Your task to perform on an android device: open app "Facebook" (install if not already installed) and go to login screen Image 0: 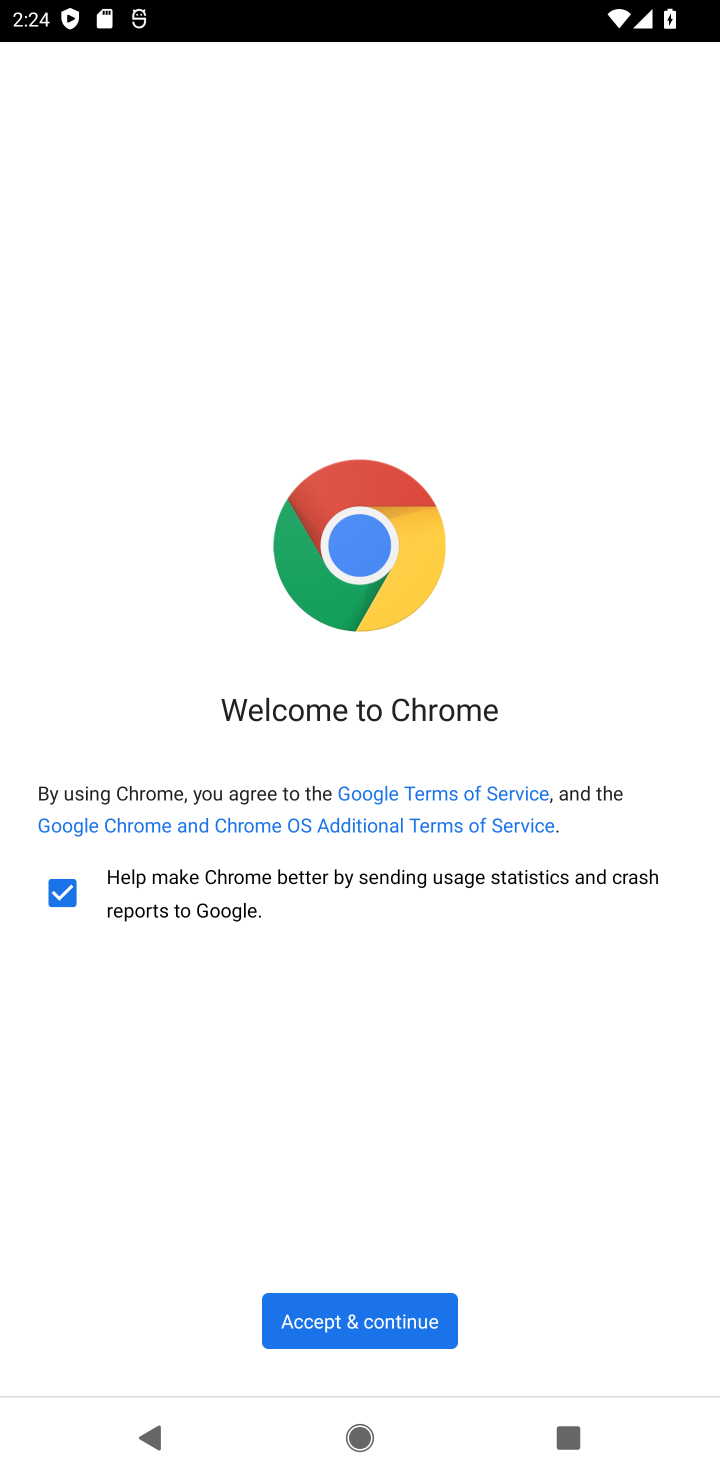
Step 0: press home button
Your task to perform on an android device: open app "Facebook" (install if not already installed) and go to login screen Image 1: 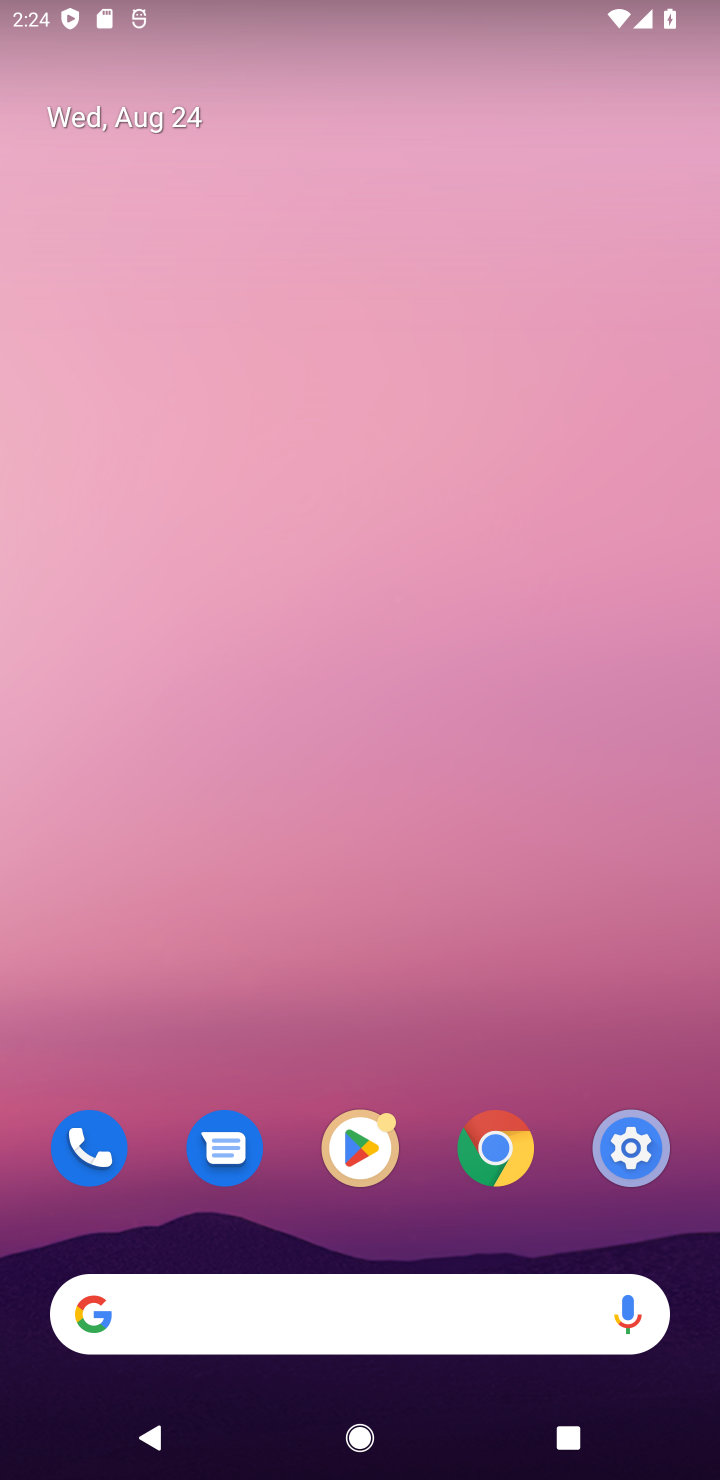
Step 1: drag from (291, 1203) to (328, 316)
Your task to perform on an android device: open app "Facebook" (install if not already installed) and go to login screen Image 2: 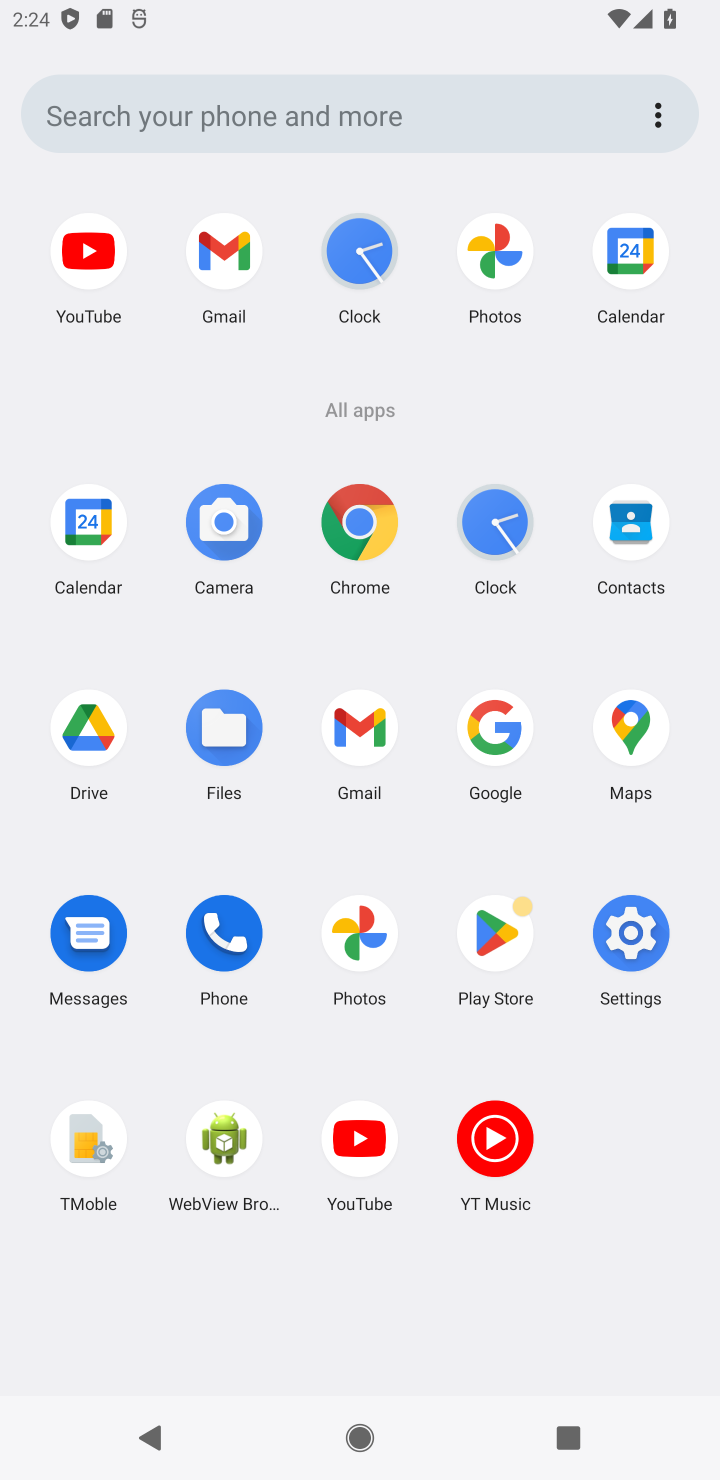
Step 2: drag from (321, 715) to (347, 584)
Your task to perform on an android device: open app "Facebook" (install if not already installed) and go to login screen Image 3: 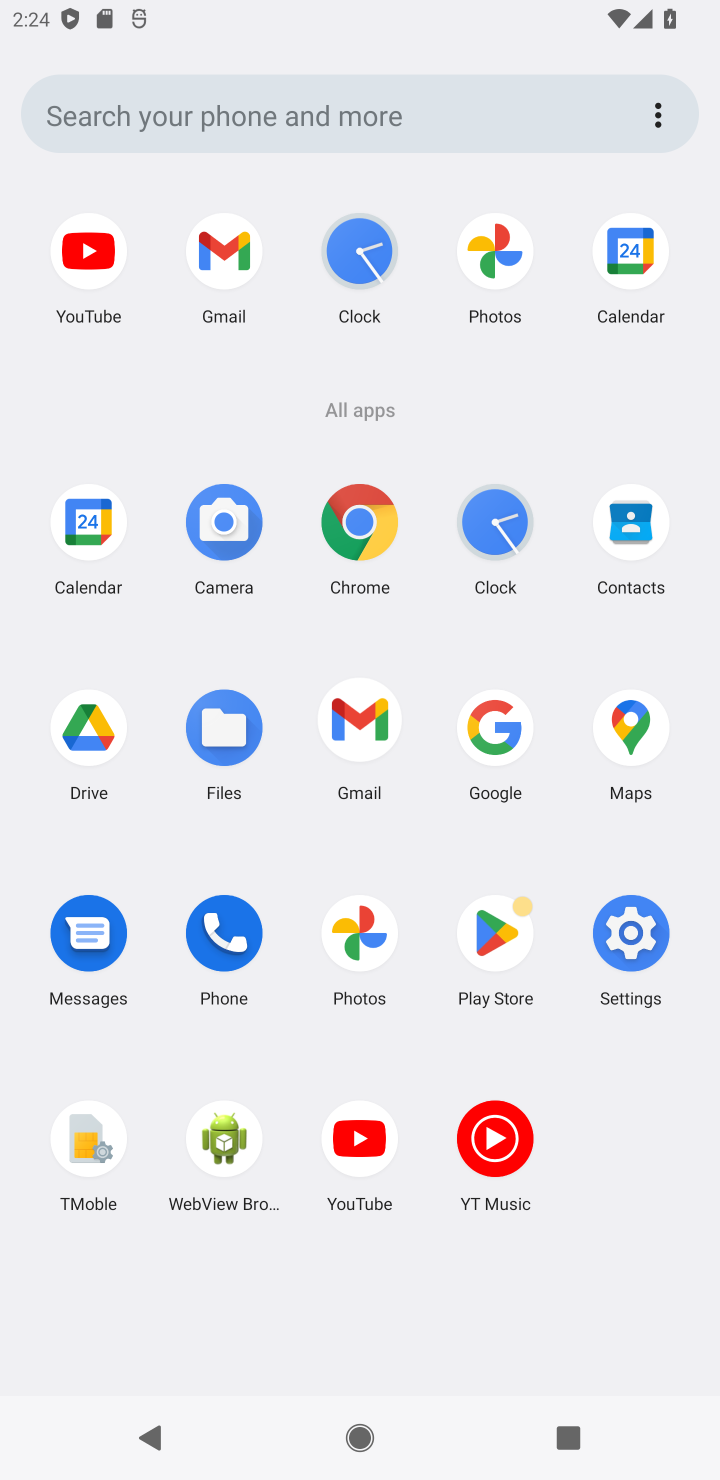
Step 3: click (489, 918)
Your task to perform on an android device: open app "Facebook" (install if not already installed) and go to login screen Image 4: 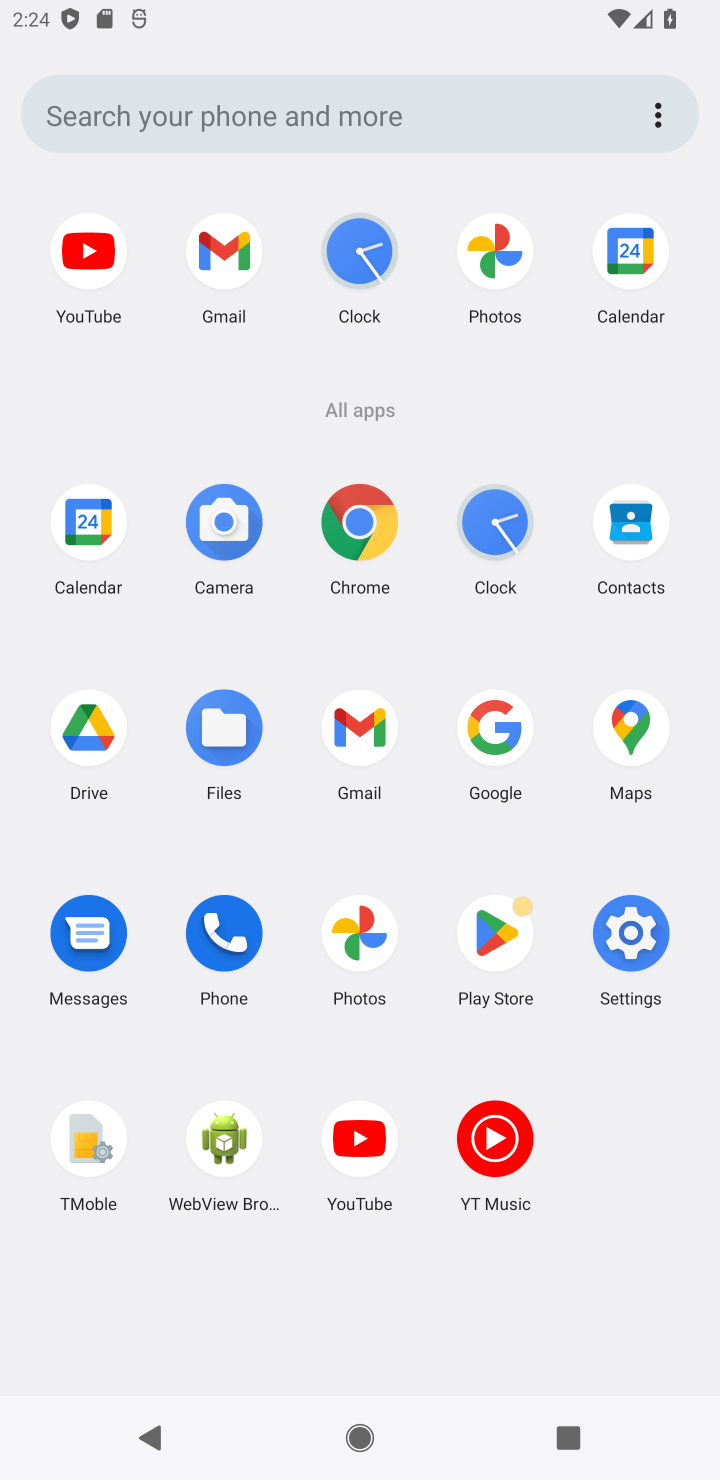
Step 4: click (491, 924)
Your task to perform on an android device: open app "Facebook" (install if not already installed) and go to login screen Image 5: 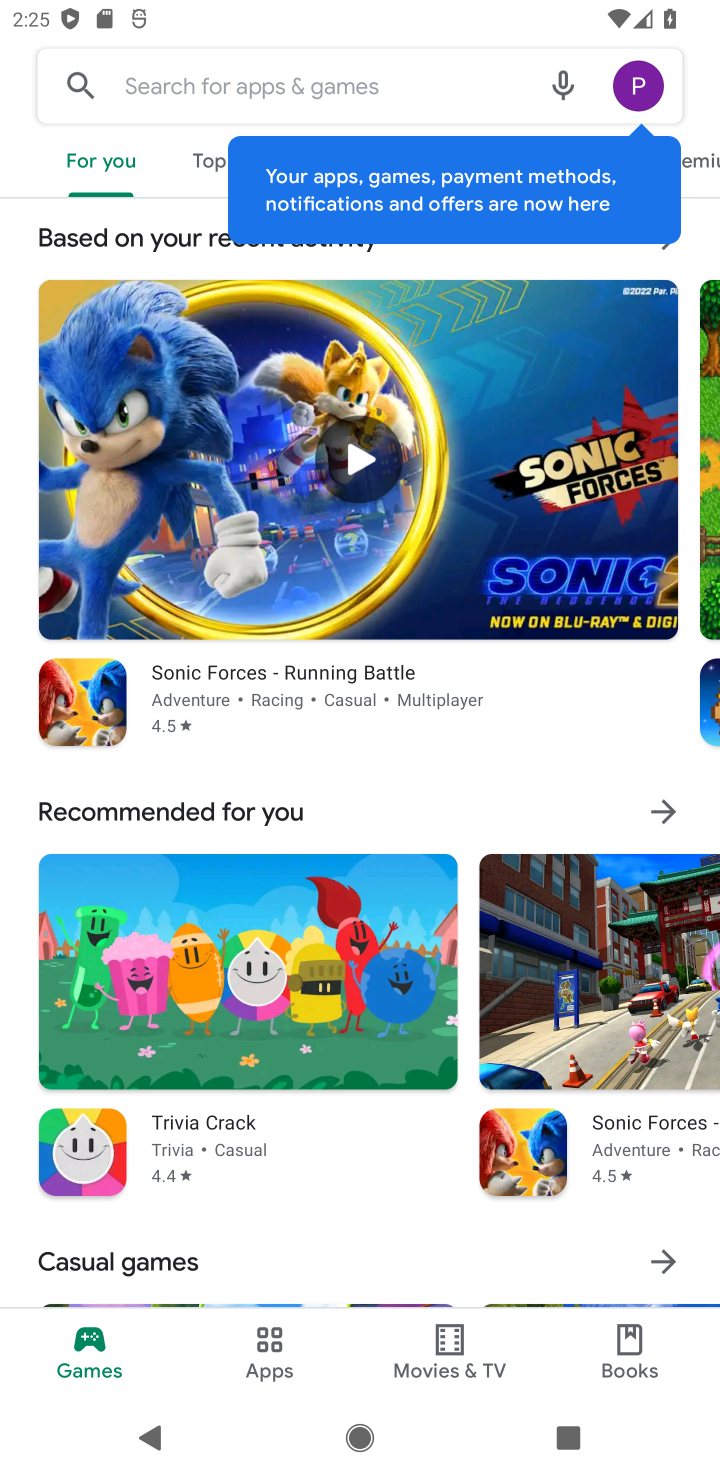
Step 5: click (286, 63)
Your task to perform on an android device: open app "Facebook" (install if not already installed) and go to login screen Image 6: 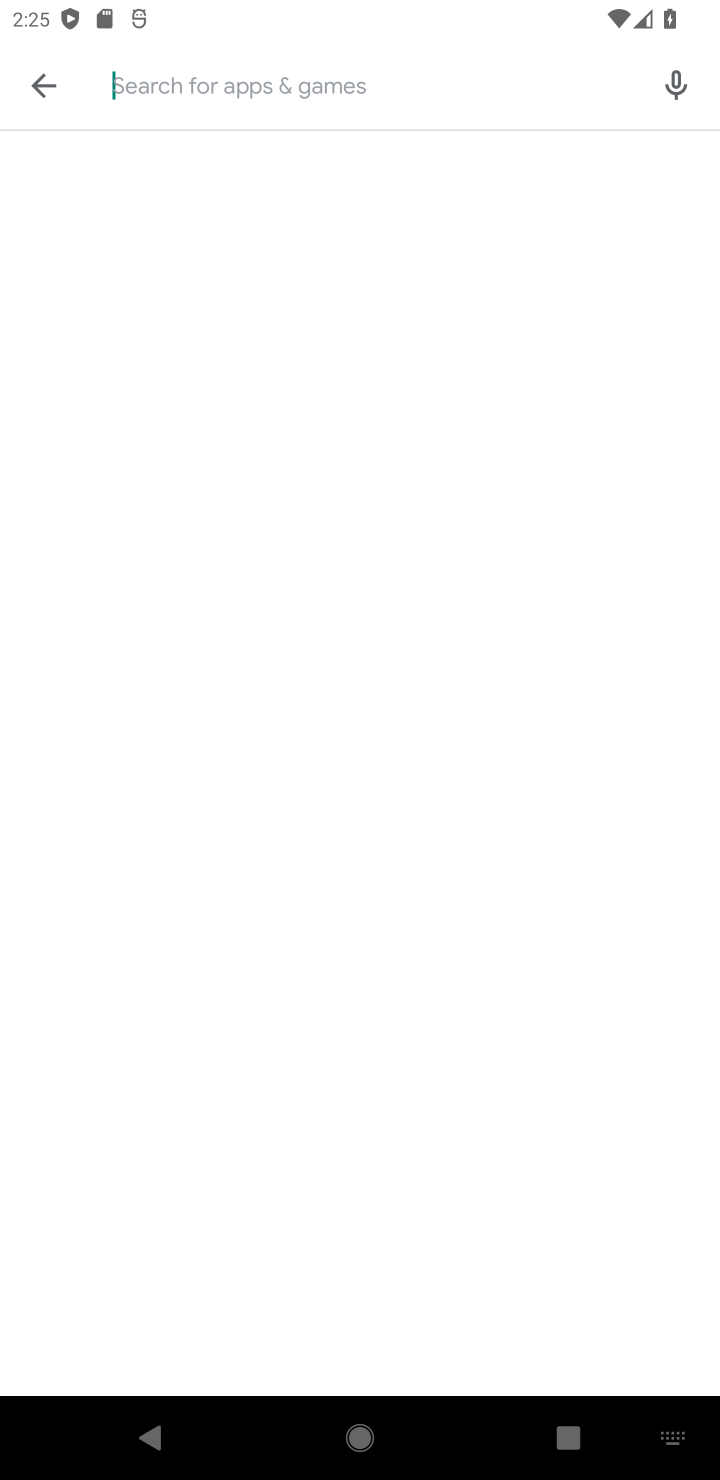
Step 6: type "Facebook "
Your task to perform on an android device: open app "Facebook" (install if not already installed) and go to login screen Image 7: 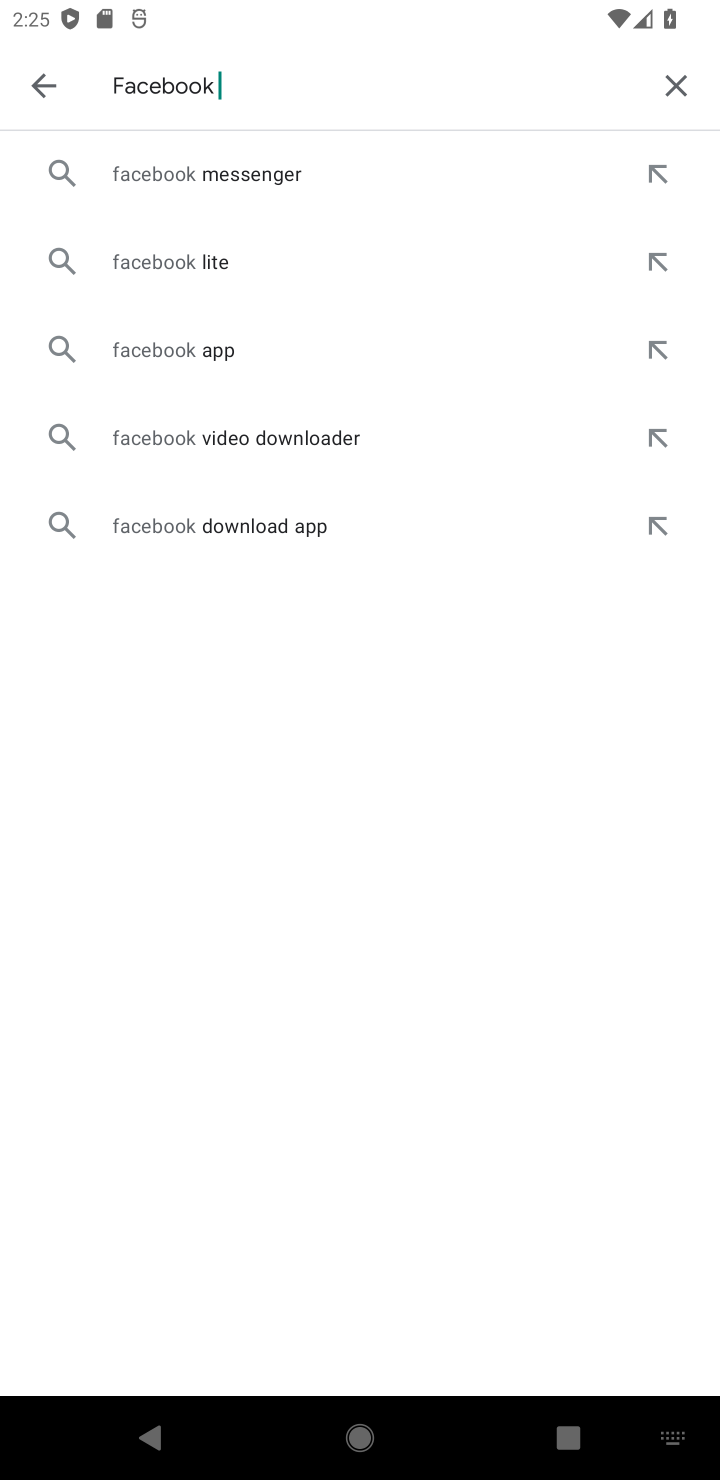
Step 7: click (187, 355)
Your task to perform on an android device: open app "Facebook" (install if not already installed) and go to login screen Image 8: 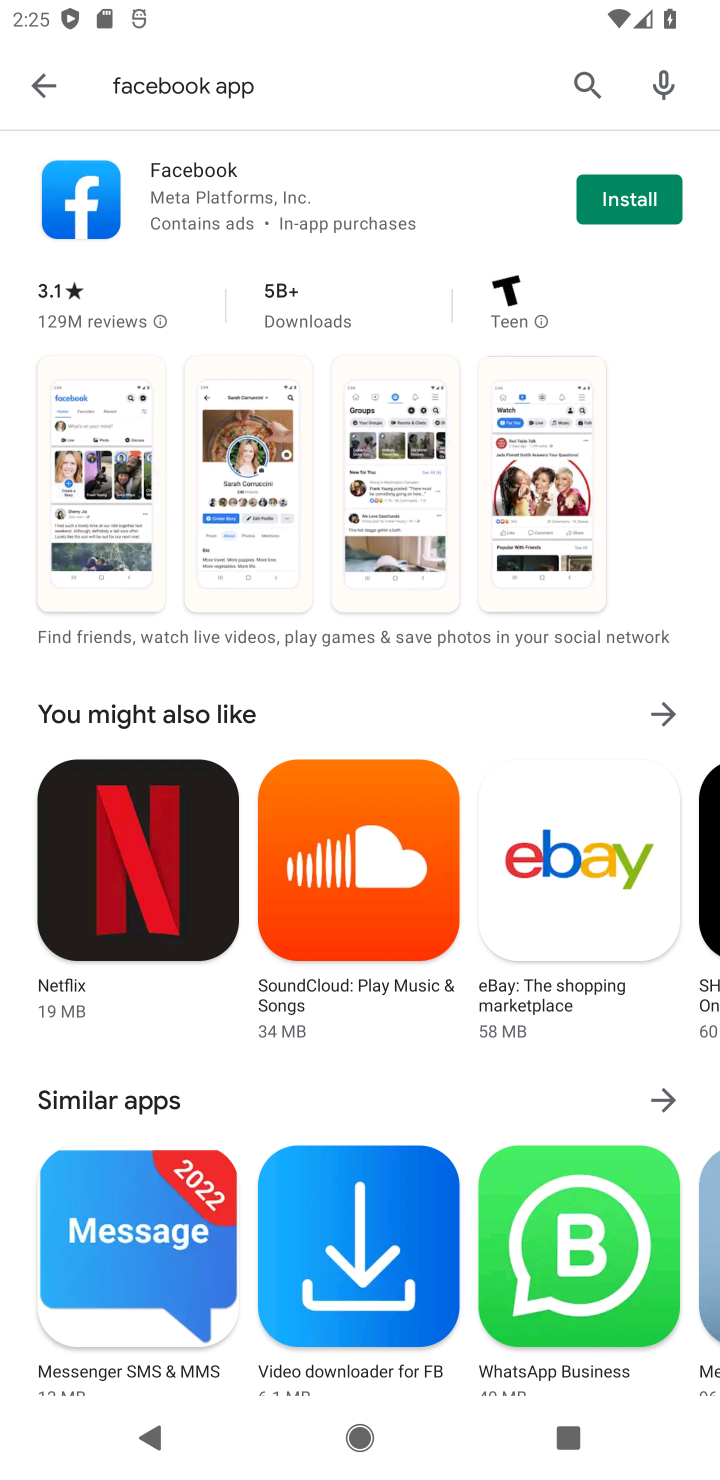
Step 8: click (630, 195)
Your task to perform on an android device: open app "Facebook" (install if not already installed) and go to login screen Image 9: 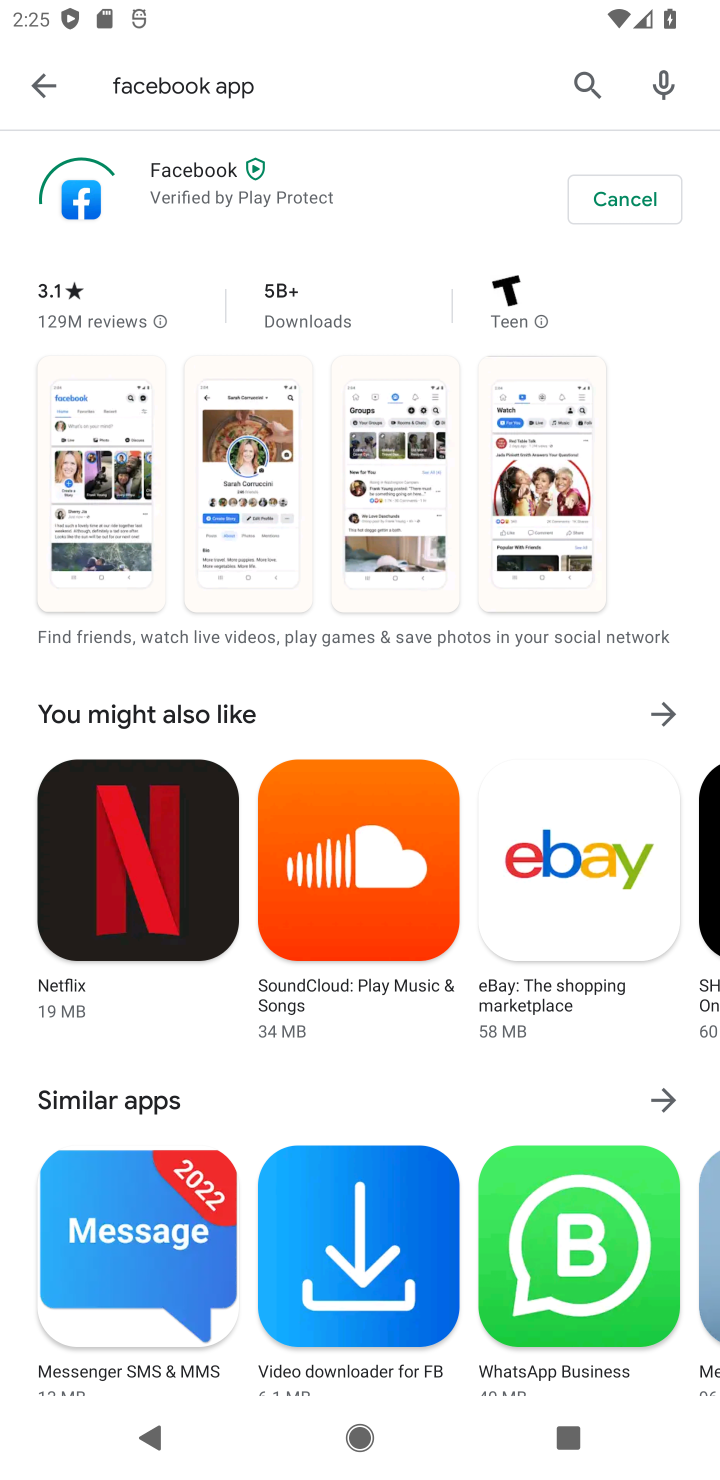
Step 9: click (606, 196)
Your task to perform on an android device: open app "Facebook" (install if not already installed) and go to login screen Image 10: 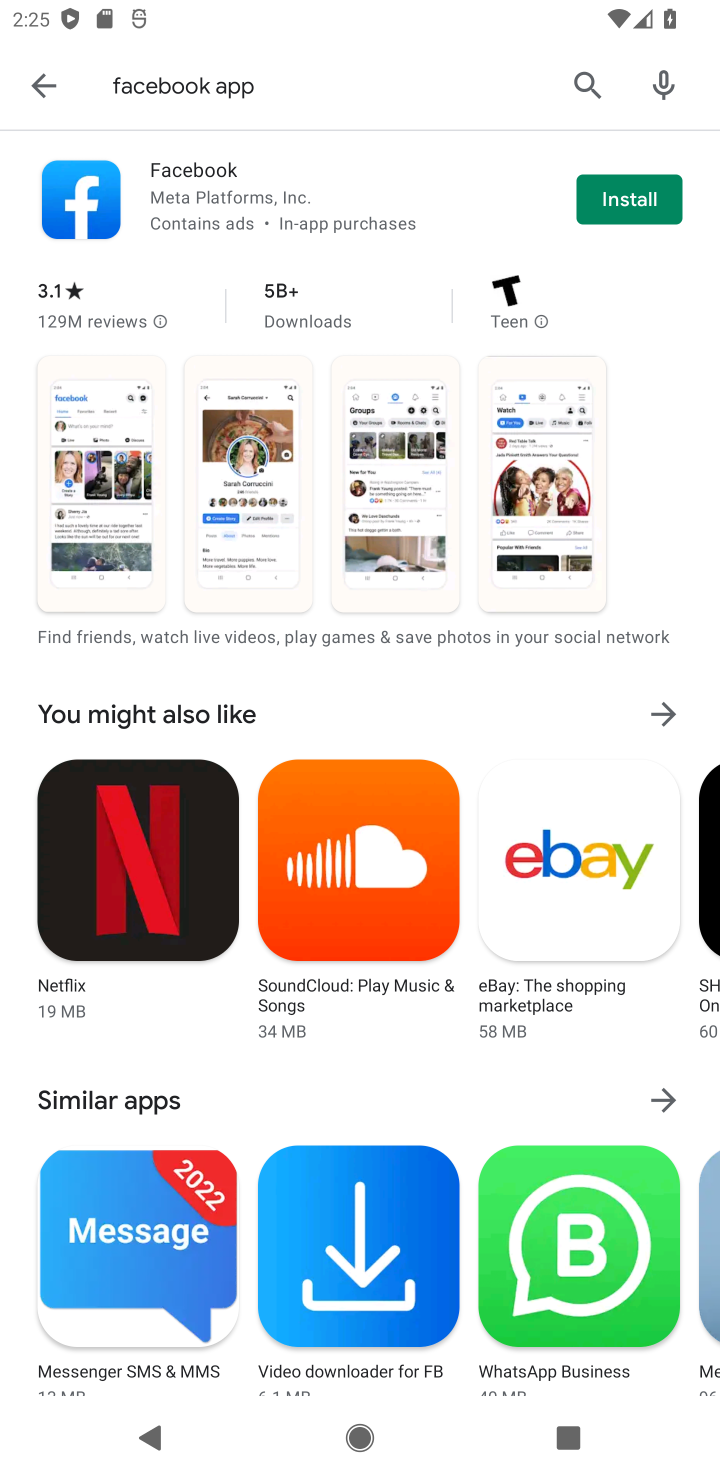
Step 10: click (664, 197)
Your task to perform on an android device: open app "Facebook" (install if not already installed) and go to login screen Image 11: 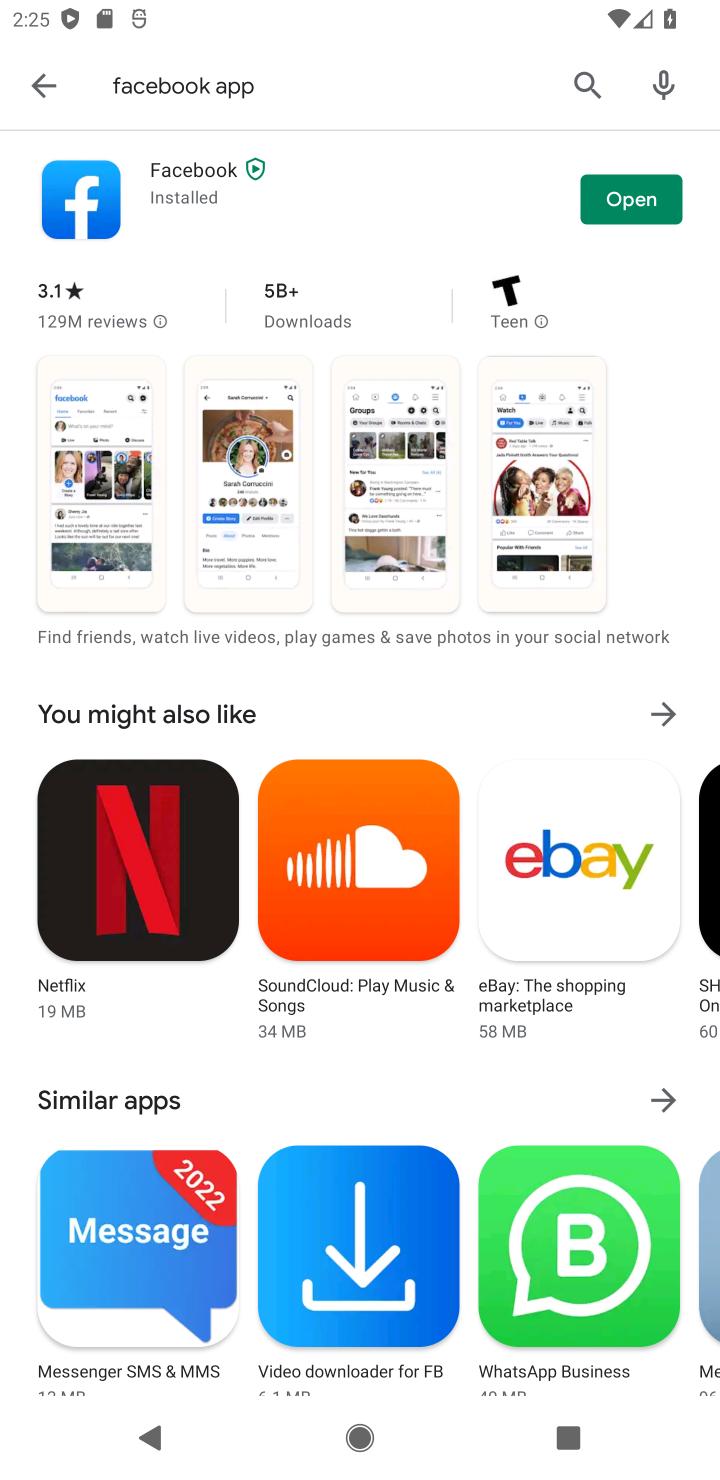
Step 11: task complete